Your task to perform on an android device: Go to Maps Image 0: 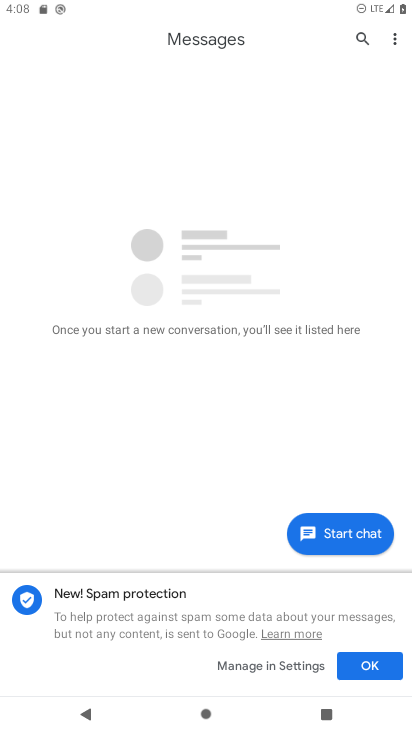
Step 0: press home button
Your task to perform on an android device: Go to Maps Image 1: 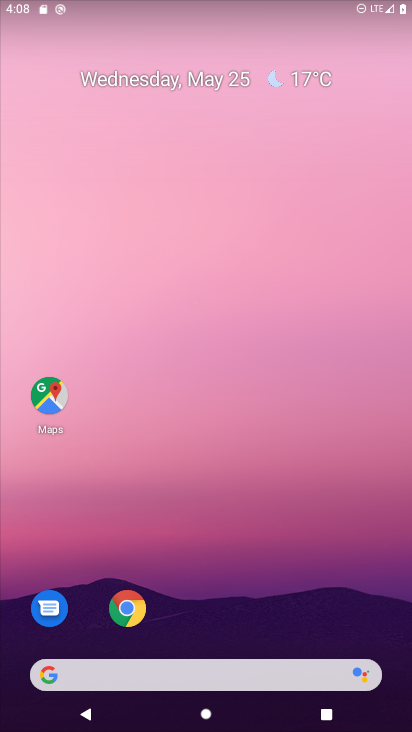
Step 1: click (48, 397)
Your task to perform on an android device: Go to Maps Image 2: 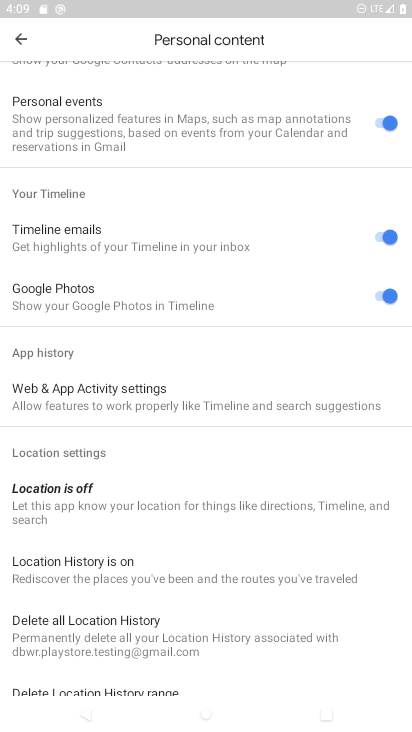
Step 2: task complete